Your task to perform on an android device: Do I have any events this weekend? Image 0: 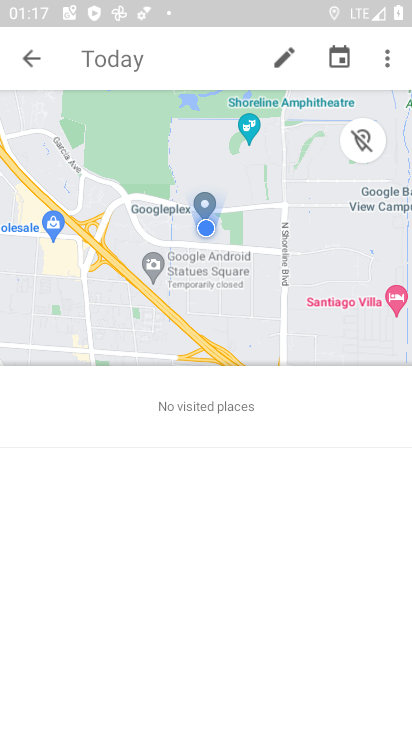
Step 0: press home button
Your task to perform on an android device: Do I have any events this weekend? Image 1: 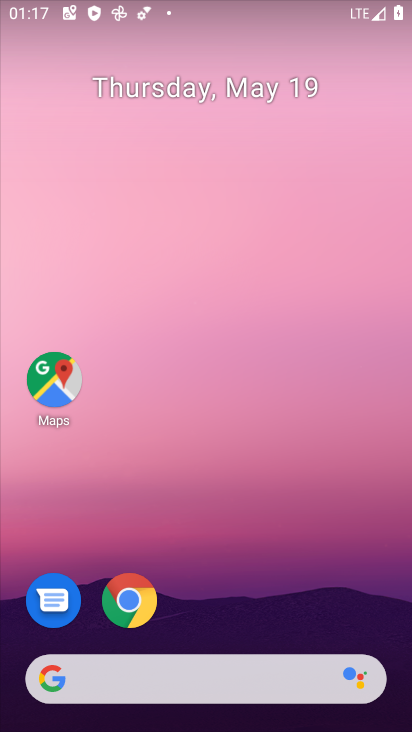
Step 1: drag from (235, 564) to (167, 82)
Your task to perform on an android device: Do I have any events this weekend? Image 2: 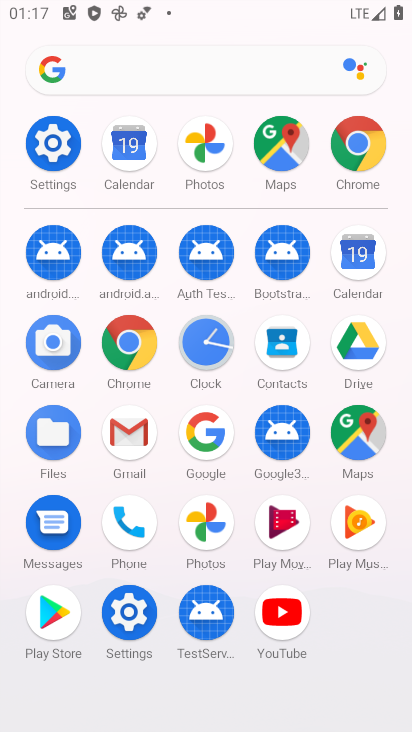
Step 2: click (358, 244)
Your task to perform on an android device: Do I have any events this weekend? Image 3: 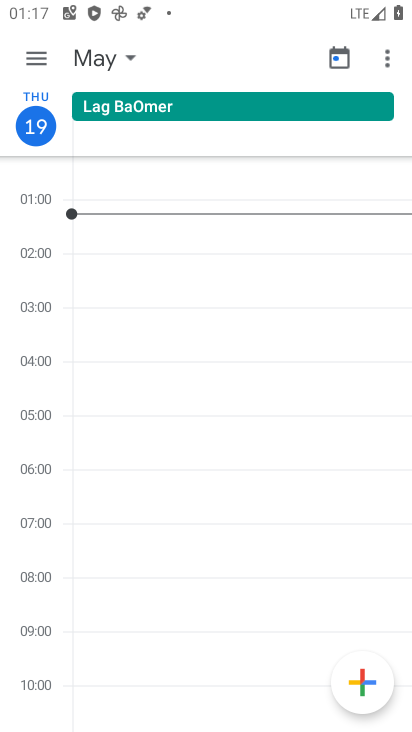
Step 3: click (34, 46)
Your task to perform on an android device: Do I have any events this weekend? Image 4: 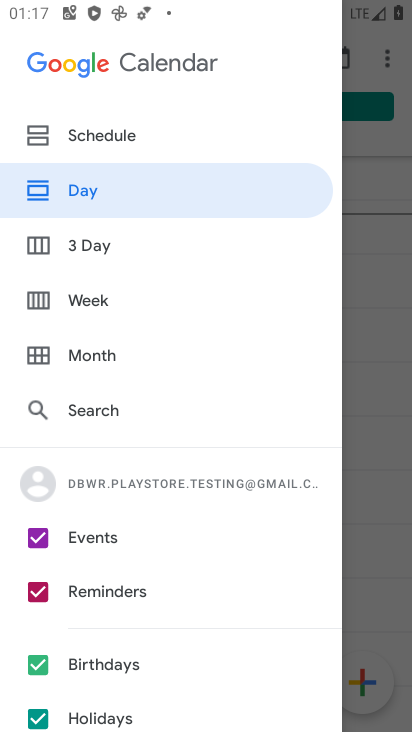
Step 4: click (83, 288)
Your task to perform on an android device: Do I have any events this weekend? Image 5: 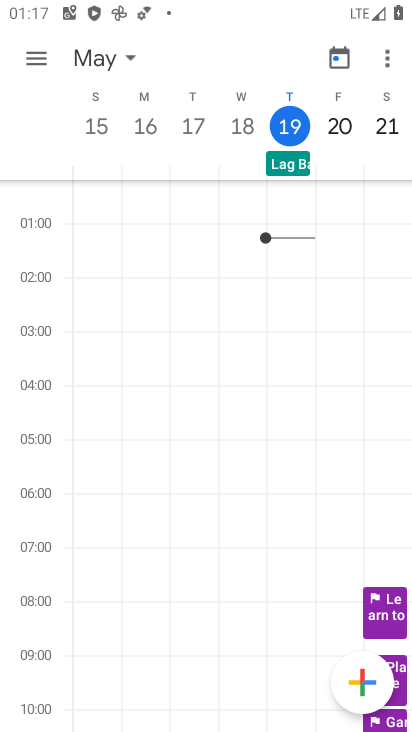
Step 5: task complete